Your task to perform on an android device: Open internet settings Image 0: 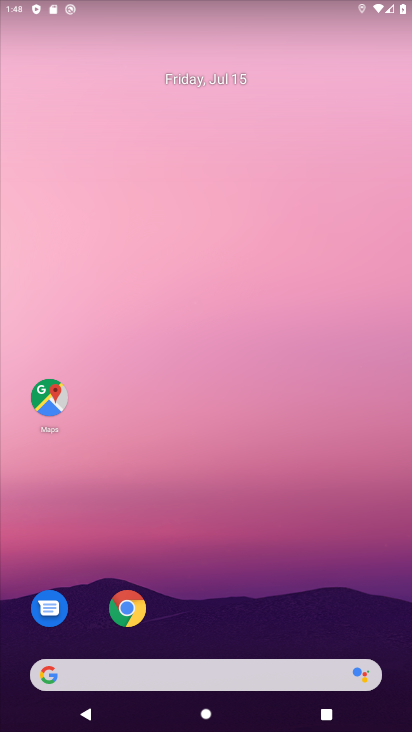
Step 0: drag from (263, 666) to (235, 35)
Your task to perform on an android device: Open internet settings Image 1: 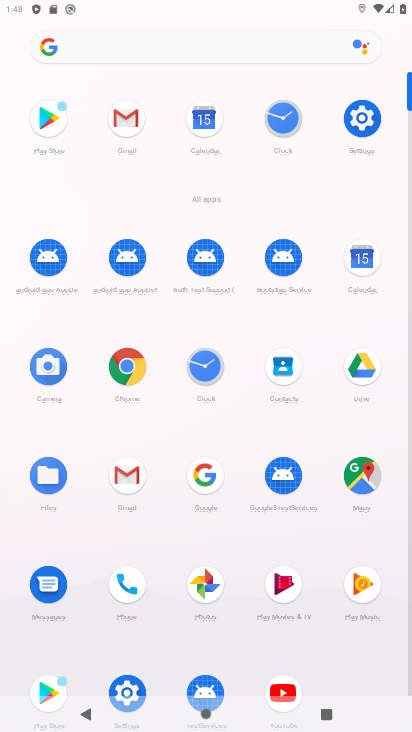
Step 1: click (347, 135)
Your task to perform on an android device: Open internet settings Image 2: 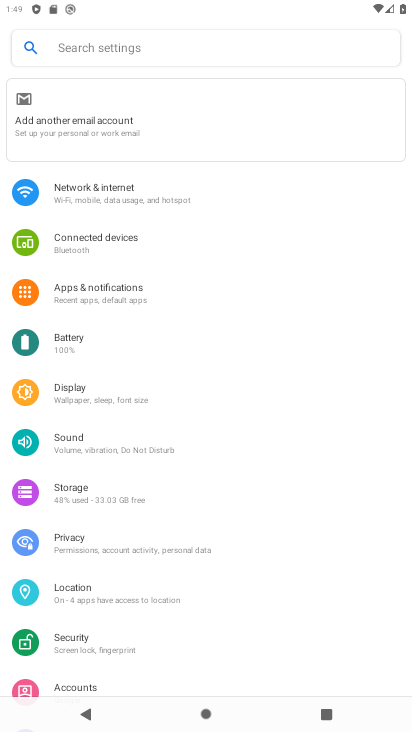
Step 2: click (151, 198)
Your task to perform on an android device: Open internet settings Image 3: 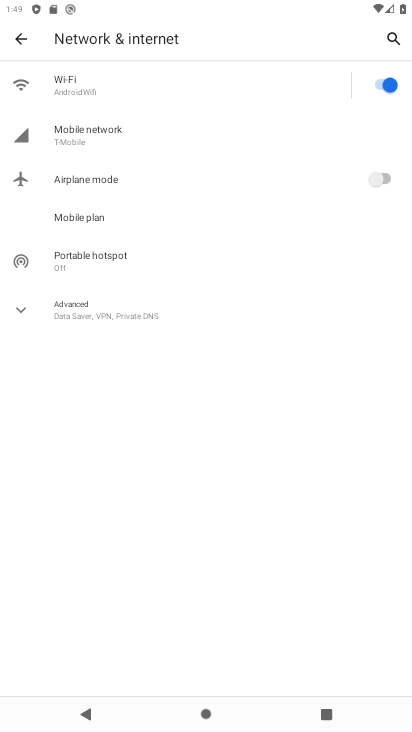
Step 3: task complete